Your task to perform on an android device: open app "Google Home" (install if not already installed) Image 0: 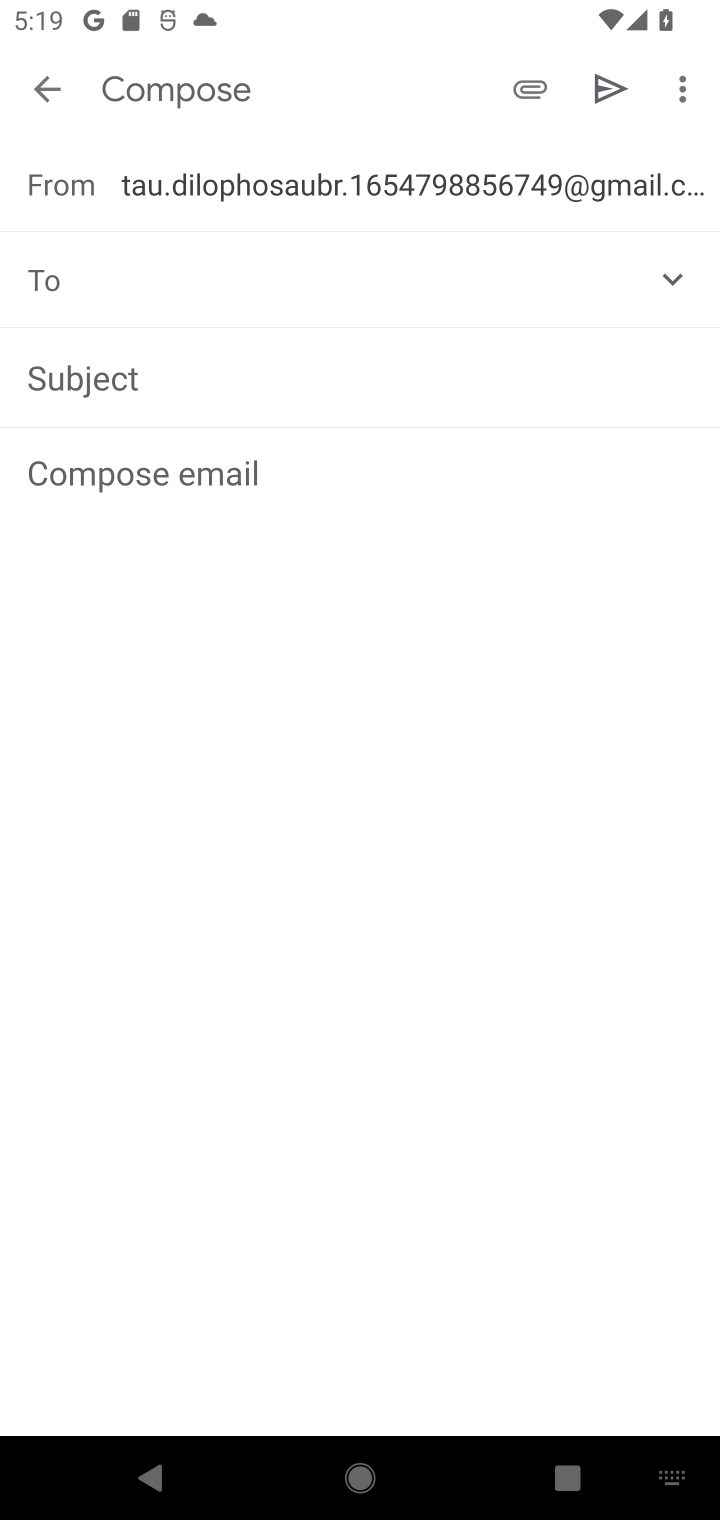
Step 0: press home button
Your task to perform on an android device: open app "Google Home" (install if not already installed) Image 1: 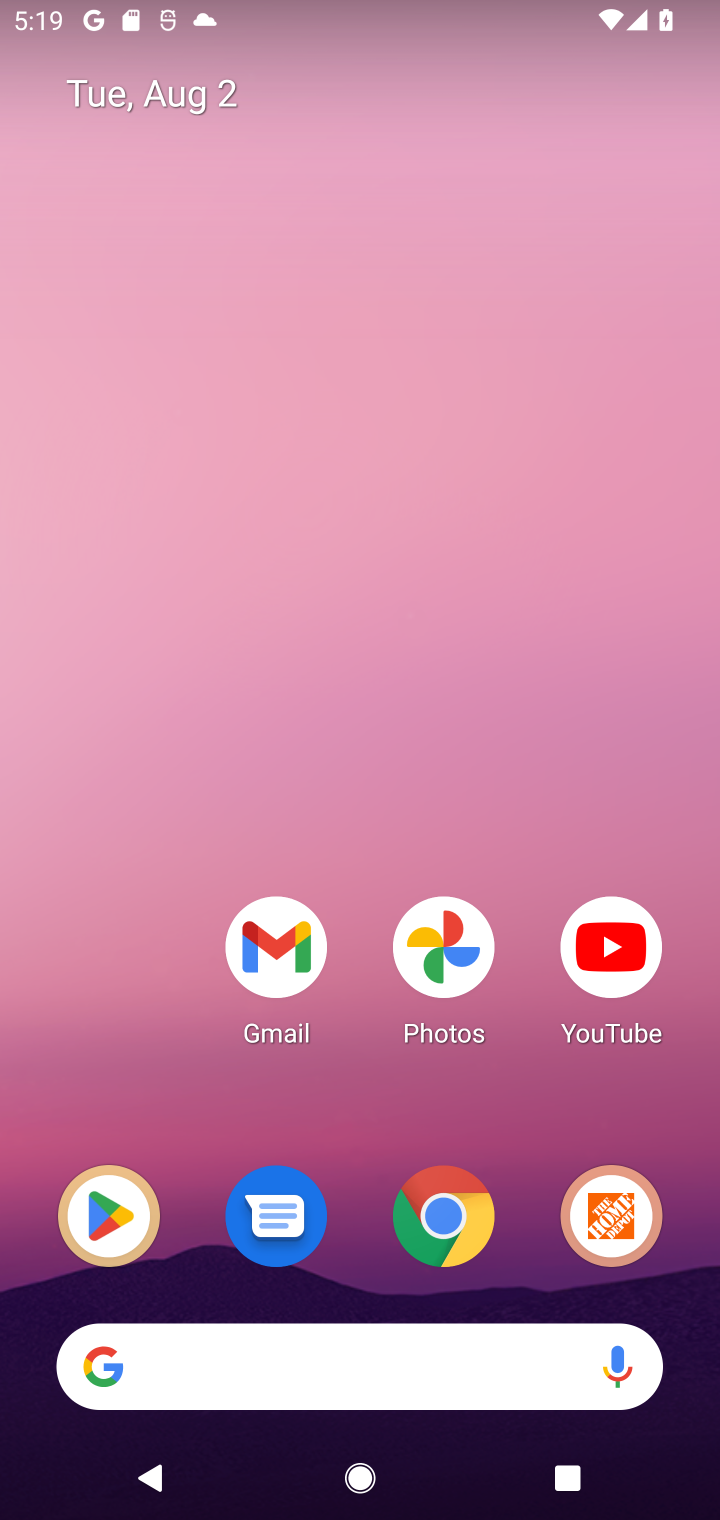
Step 1: click (136, 1236)
Your task to perform on an android device: open app "Google Home" (install if not already installed) Image 2: 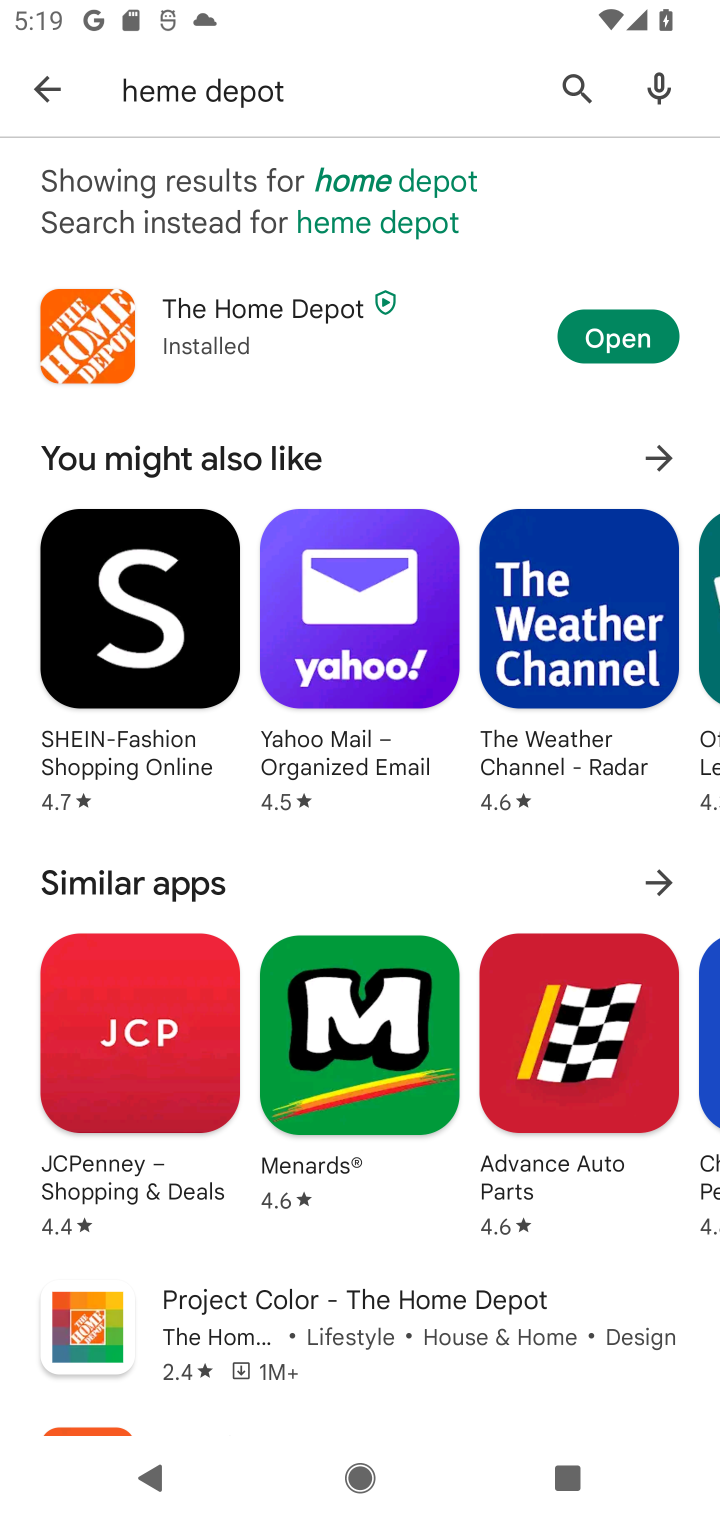
Step 2: click (578, 77)
Your task to perform on an android device: open app "Google Home" (install if not already installed) Image 3: 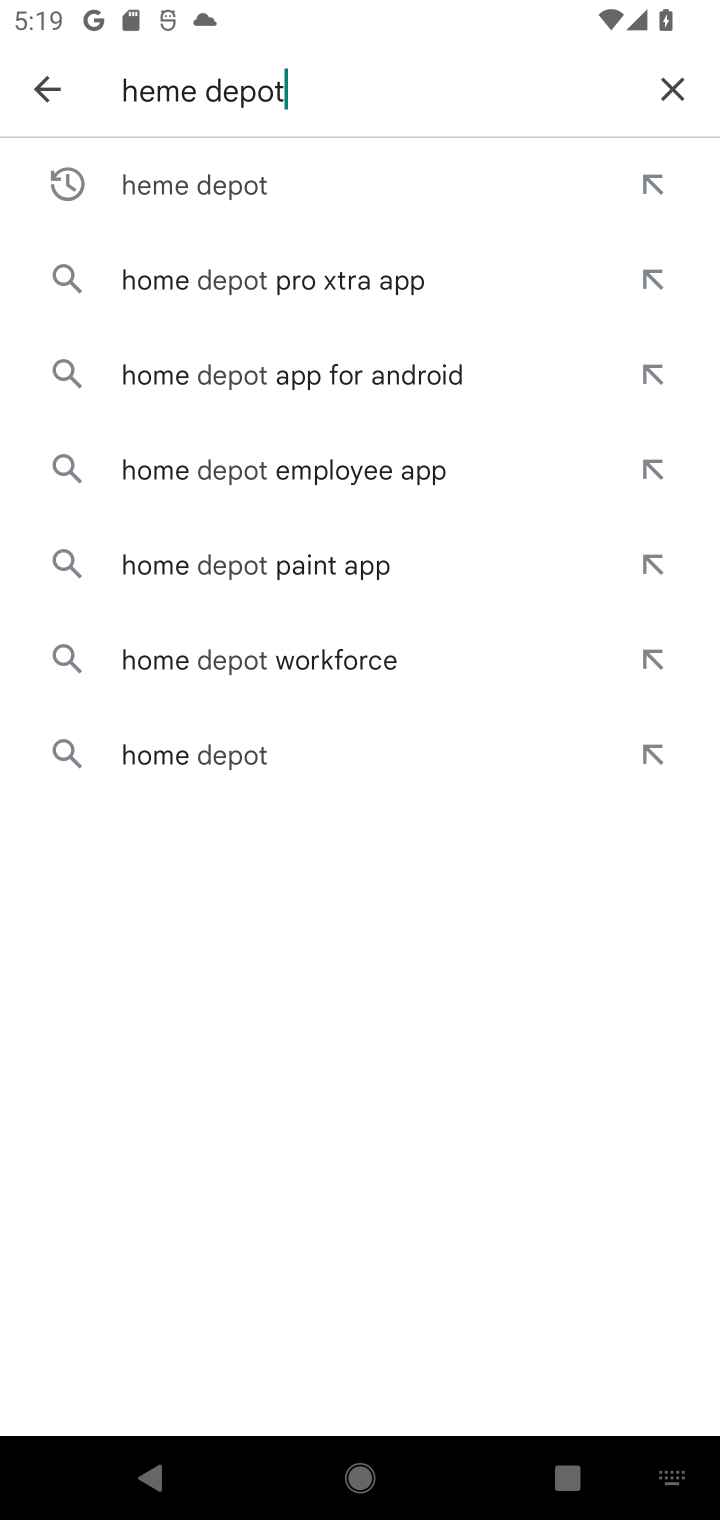
Step 3: click (653, 91)
Your task to perform on an android device: open app "Google Home" (install if not already installed) Image 4: 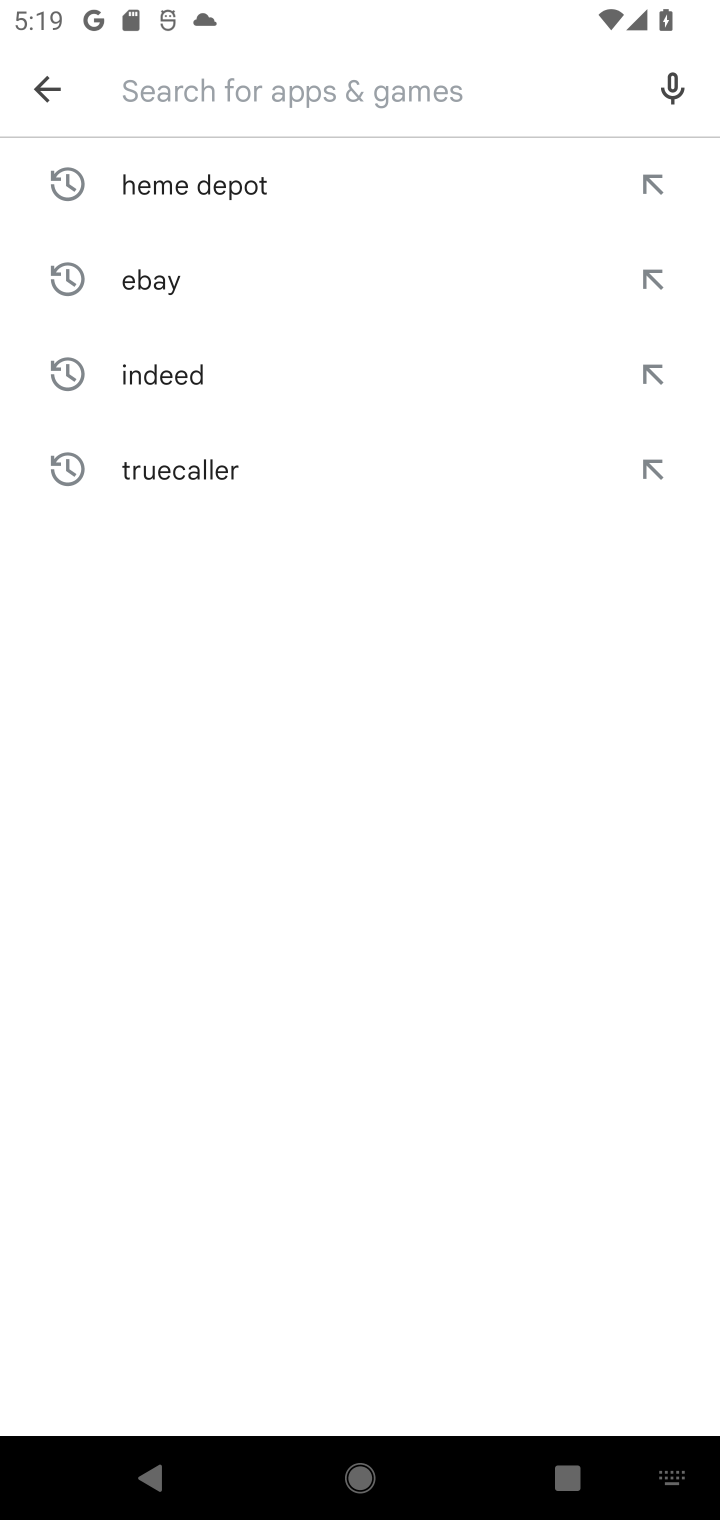
Step 4: type "google home"
Your task to perform on an android device: open app "Google Home" (install if not already installed) Image 5: 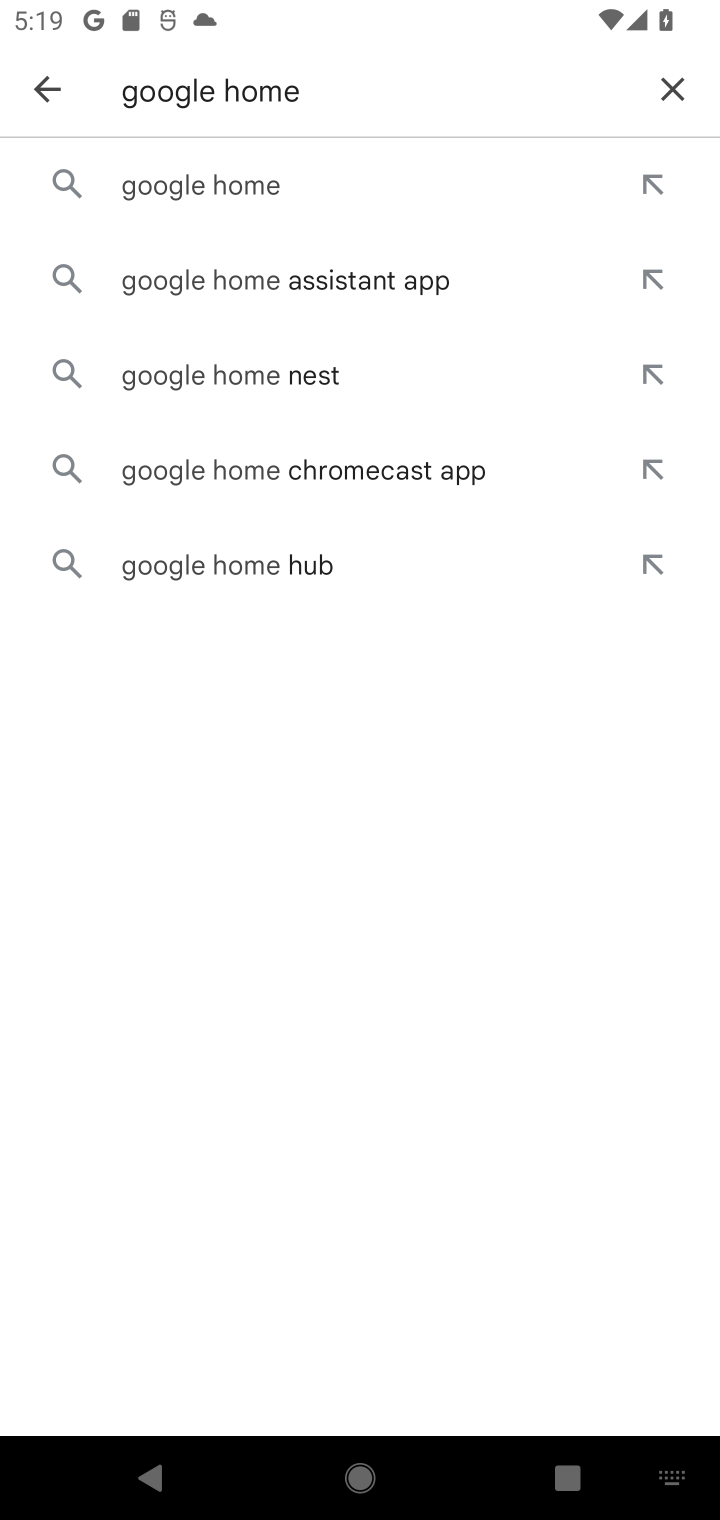
Step 5: click (285, 198)
Your task to perform on an android device: open app "Google Home" (install if not already installed) Image 6: 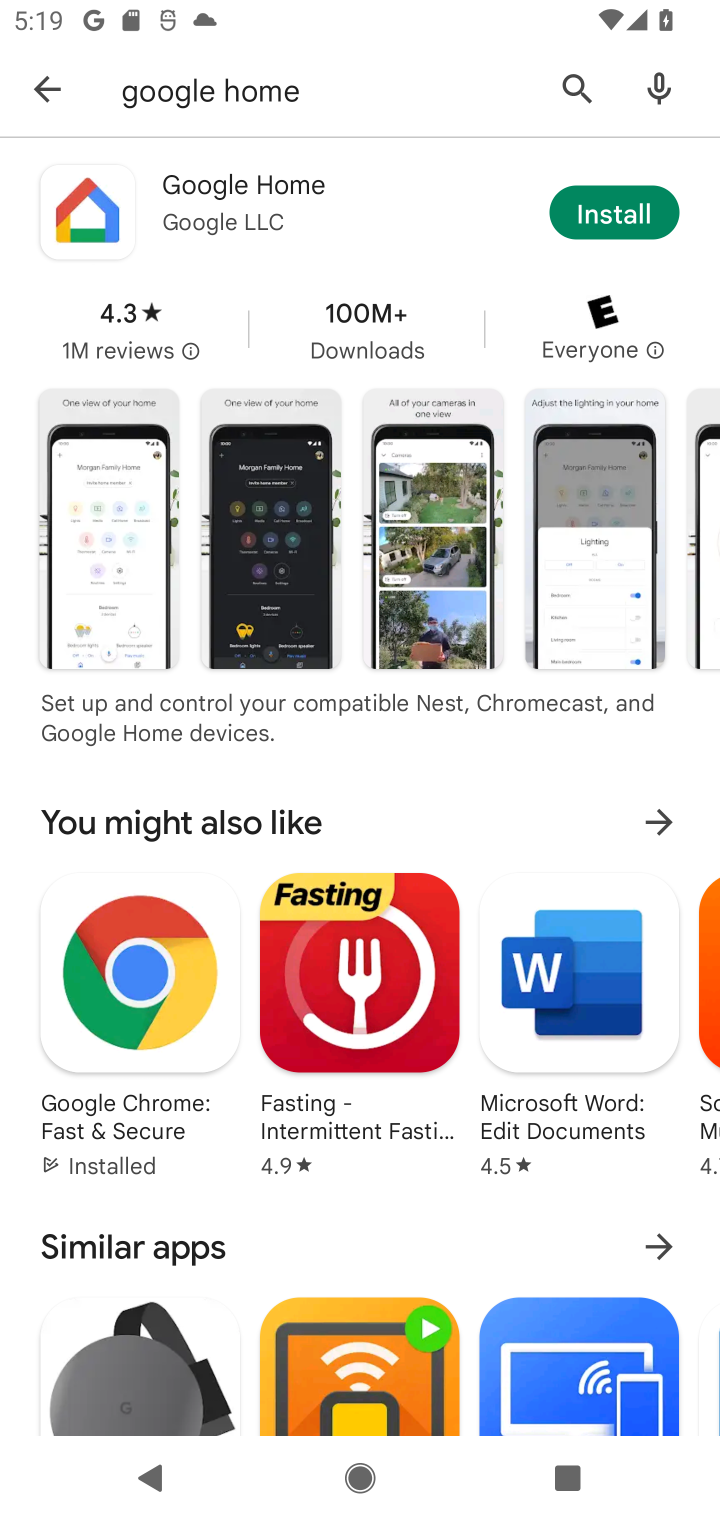
Step 6: click (579, 210)
Your task to perform on an android device: open app "Google Home" (install if not already installed) Image 7: 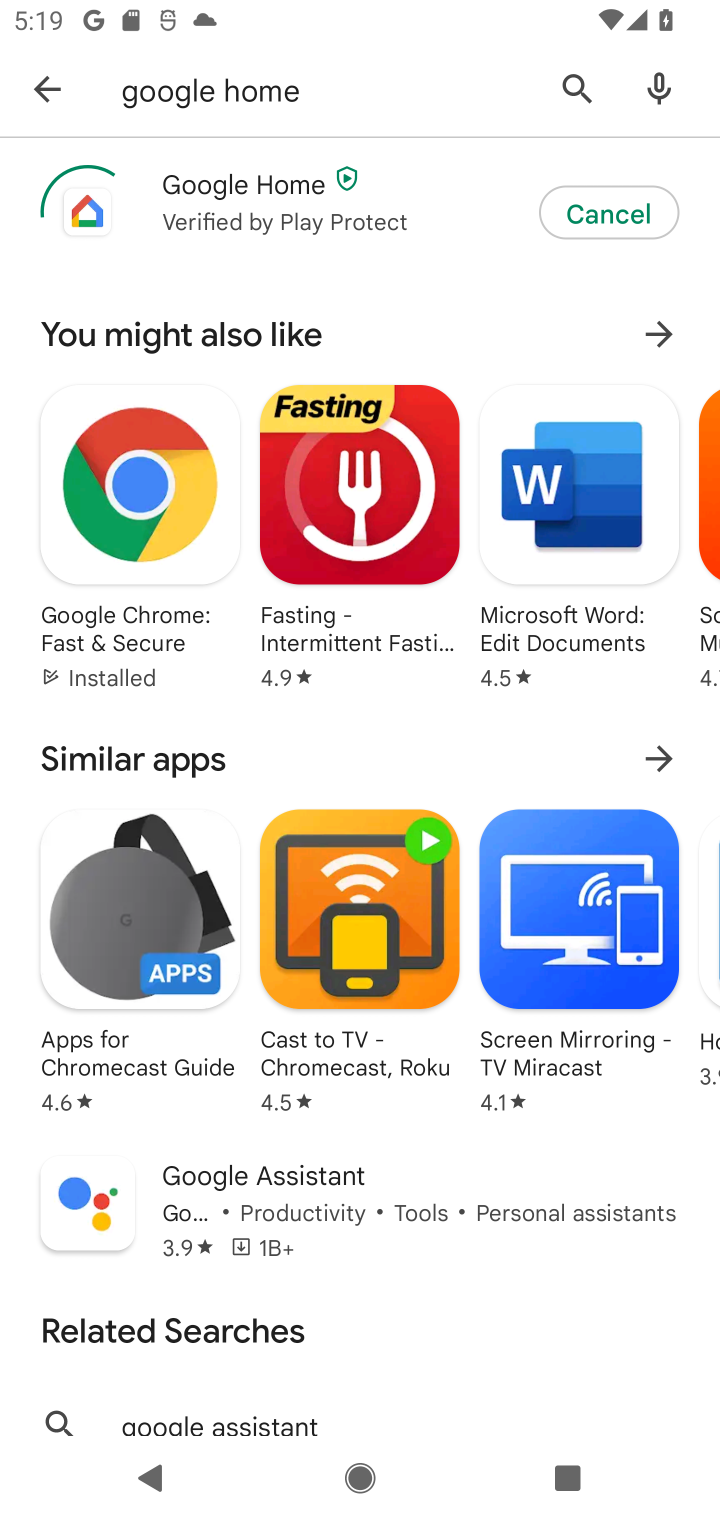
Step 7: task complete